Your task to perform on an android device: turn off picture-in-picture Image 0: 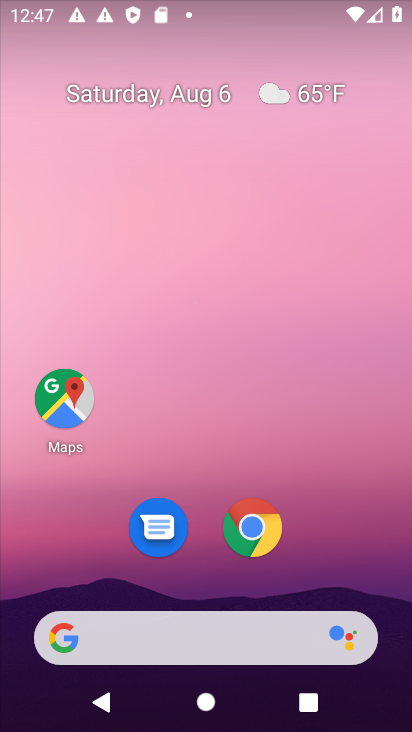
Step 0: drag from (213, 480) to (86, 34)
Your task to perform on an android device: turn off picture-in-picture Image 1: 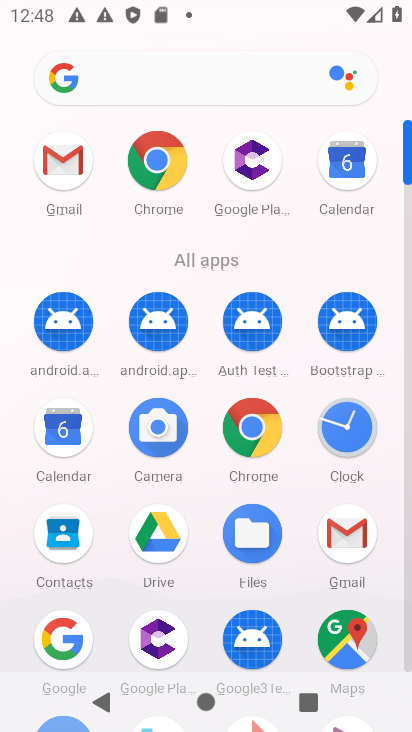
Step 1: click (162, 173)
Your task to perform on an android device: turn off picture-in-picture Image 2: 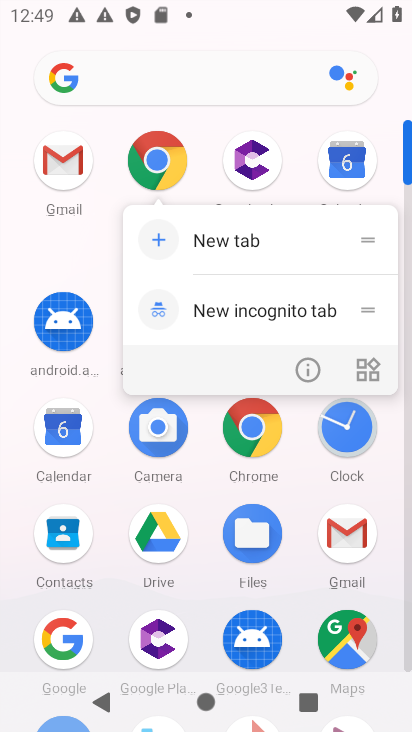
Step 2: click (303, 369)
Your task to perform on an android device: turn off picture-in-picture Image 3: 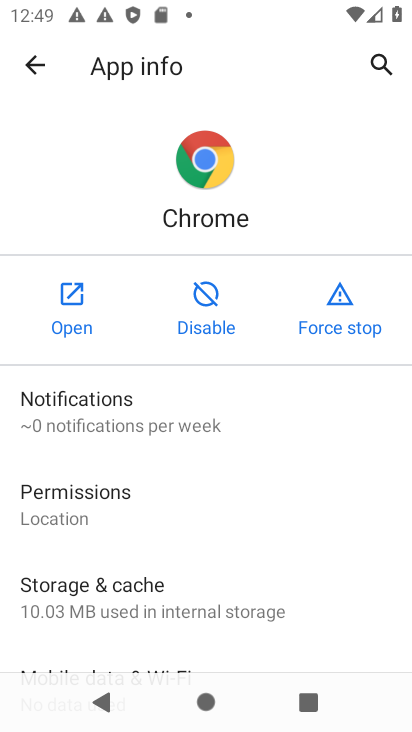
Step 3: drag from (233, 546) to (265, 159)
Your task to perform on an android device: turn off picture-in-picture Image 4: 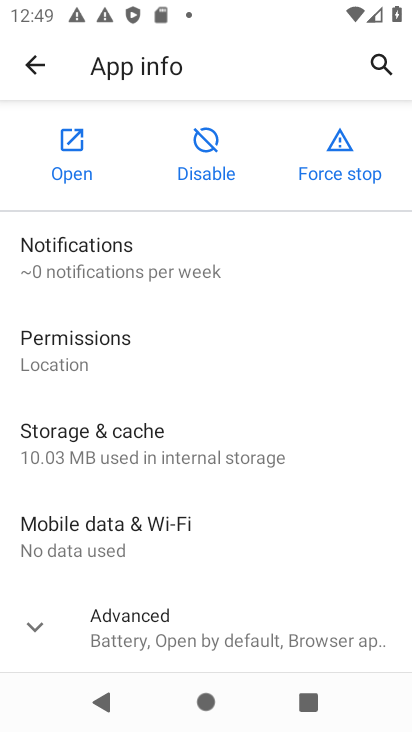
Step 4: drag from (171, 600) to (235, 253)
Your task to perform on an android device: turn off picture-in-picture Image 5: 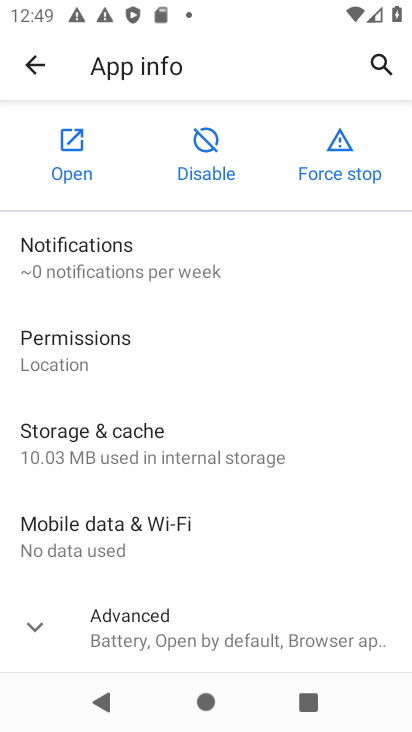
Step 5: click (185, 623)
Your task to perform on an android device: turn off picture-in-picture Image 6: 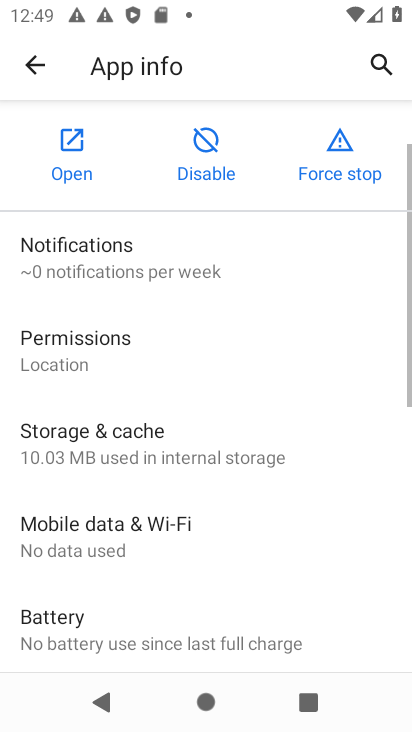
Step 6: drag from (163, 655) to (217, 303)
Your task to perform on an android device: turn off picture-in-picture Image 7: 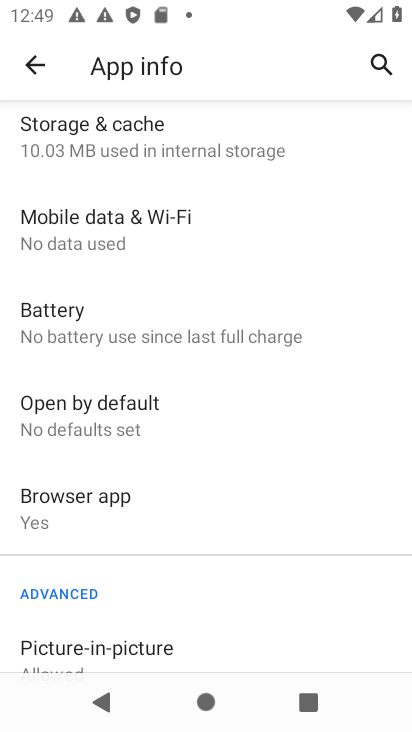
Step 7: drag from (147, 612) to (217, 258)
Your task to perform on an android device: turn off picture-in-picture Image 8: 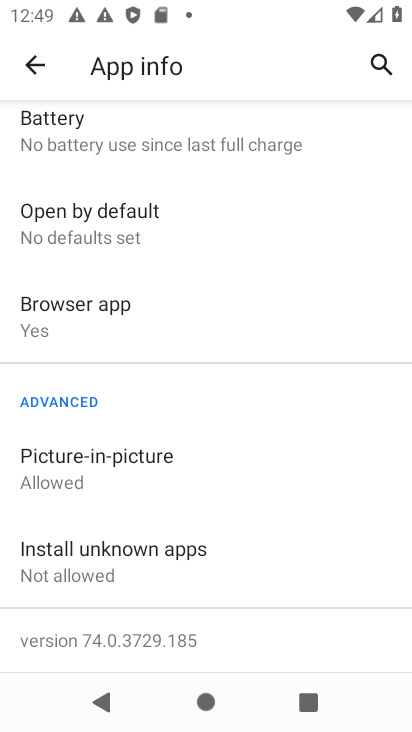
Step 8: click (84, 472)
Your task to perform on an android device: turn off picture-in-picture Image 9: 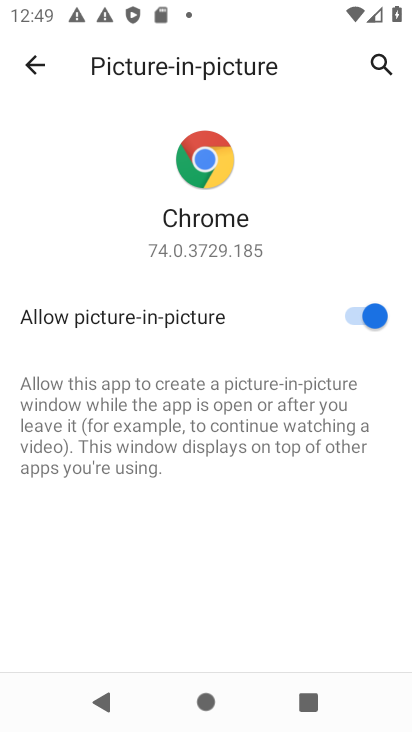
Step 9: click (383, 308)
Your task to perform on an android device: turn off picture-in-picture Image 10: 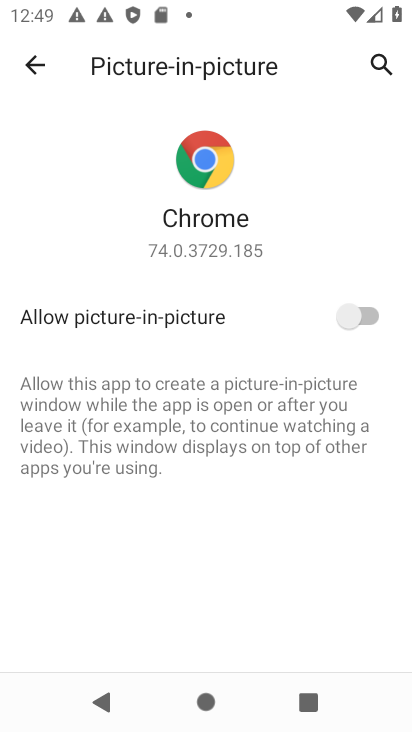
Step 10: task complete